Your task to perform on an android device: Go to settings Image 0: 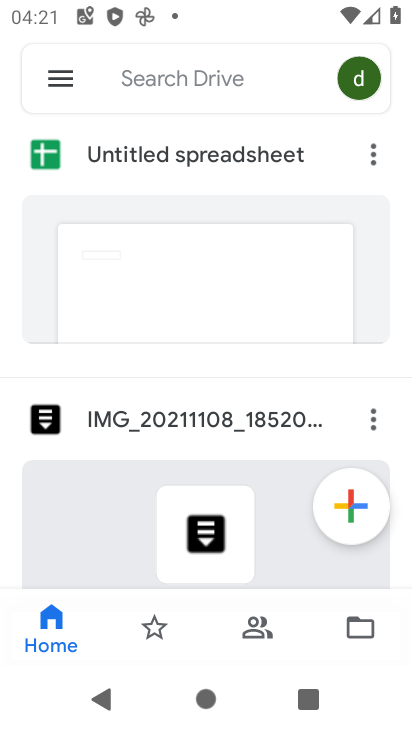
Step 0: press home button
Your task to perform on an android device: Go to settings Image 1: 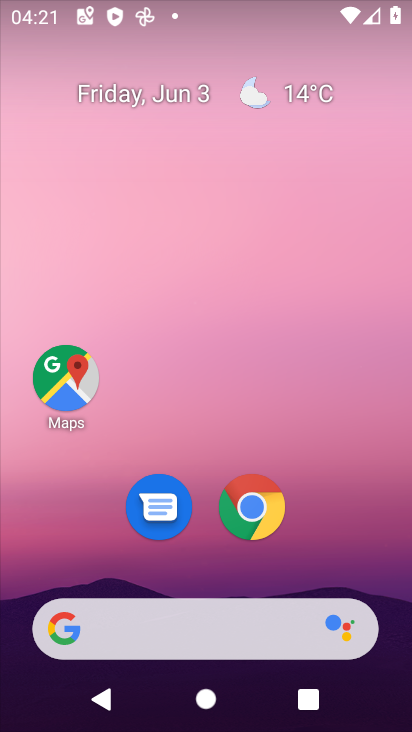
Step 1: drag from (340, 577) to (357, 13)
Your task to perform on an android device: Go to settings Image 2: 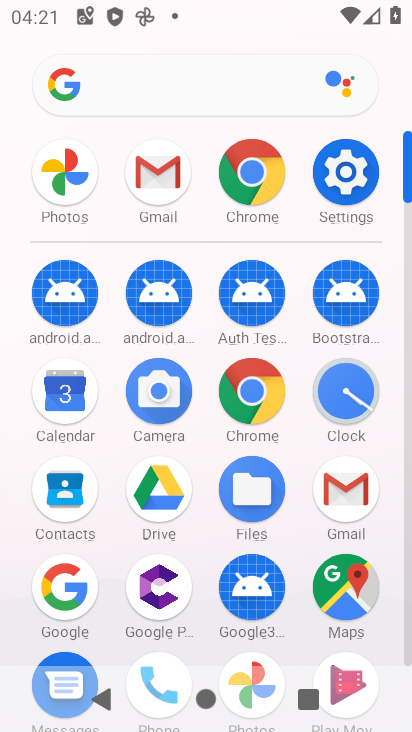
Step 2: click (349, 166)
Your task to perform on an android device: Go to settings Image 3: 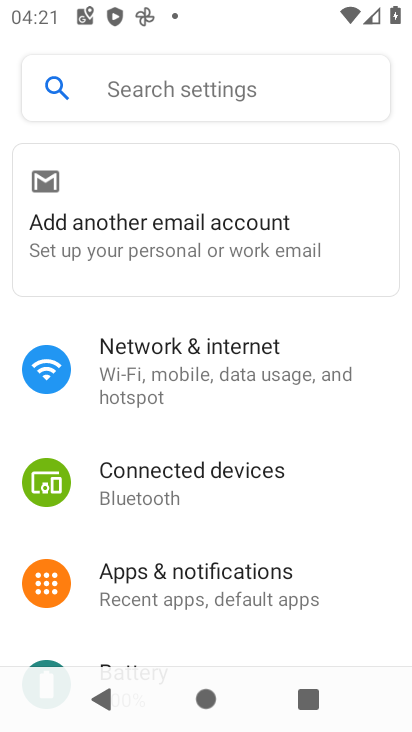
Step 3: task complete